Your task to perform on an android device: turn off improve location accuracy Image 0: 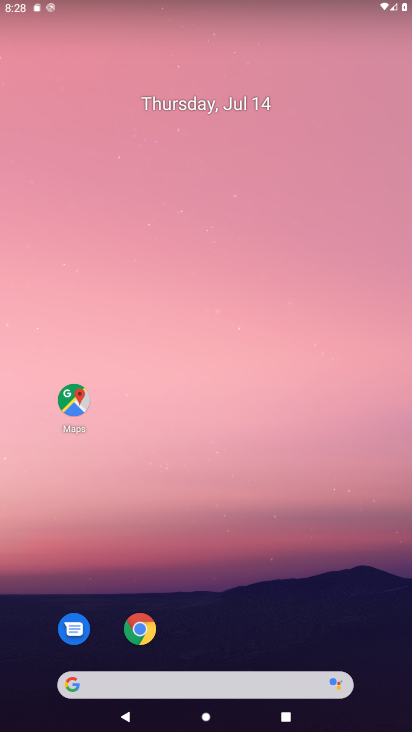
Step 0: drag from (209, 638) to (262, 9)
Your task to perform on an android device: turn off improve location accuracy Image 1: 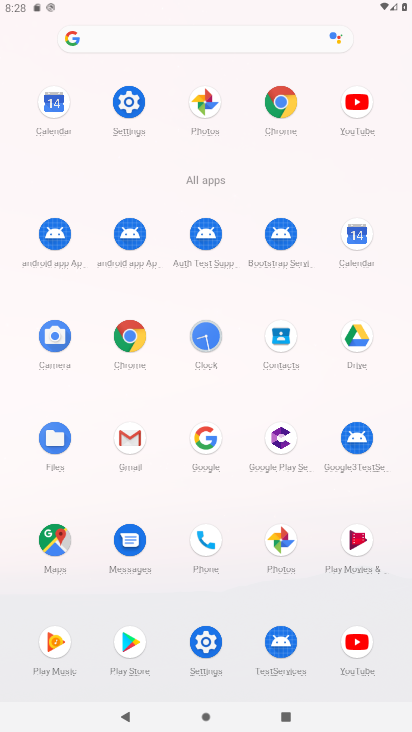
Step 1: click (203, 658)
Your task to perform on an android device: turn off improve location accuracy Image 2: 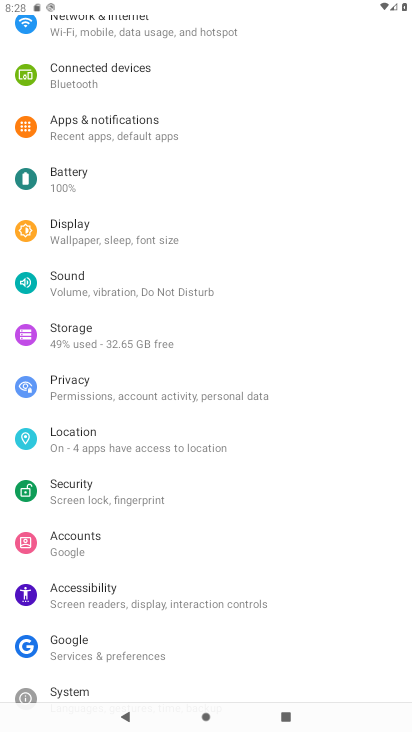
Step 2: click (110, 449)
Your task to perform on an android device: turn off improve location accuracy Image 3: 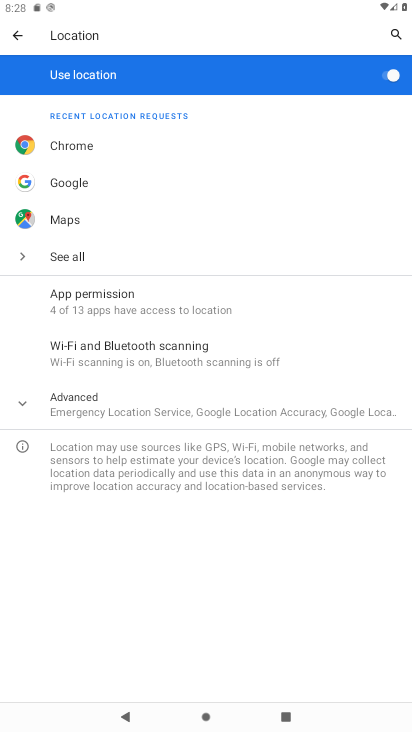
Step 3: click (112, 409)
Your task to perform on an android device: turn off improve location accuracy Image 4: 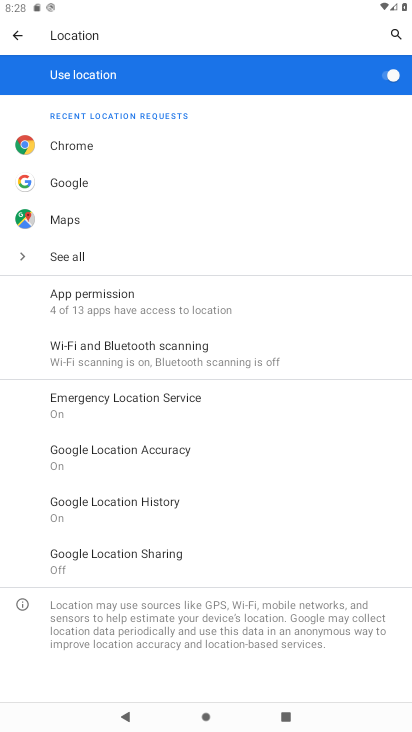
Step 4: click (131, 458)
Your task to perform on an android device: turn off improve location accuracy Image 5: 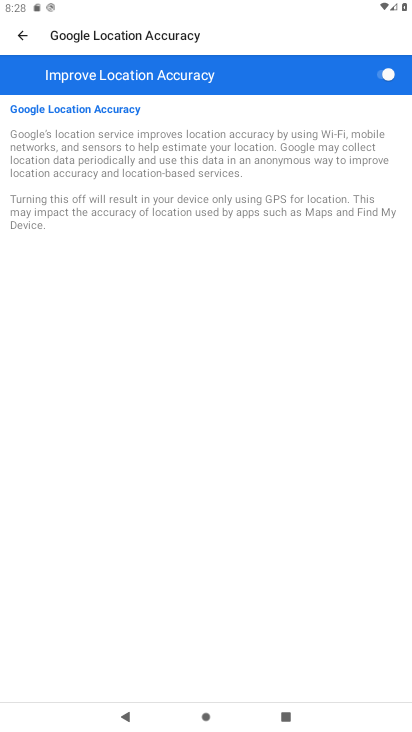
Step 5: click (365, 74)
Your task to perform on an android device: turn off improve location accuracy Image 6: 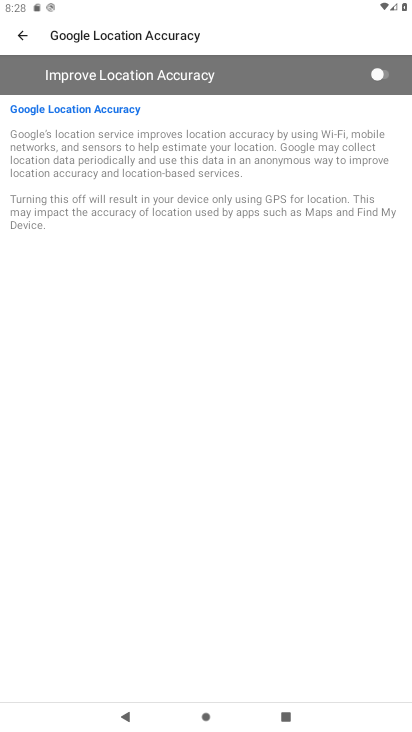
Step 6: task complete